Your task to perform on an android device: check out phone information Image 0: 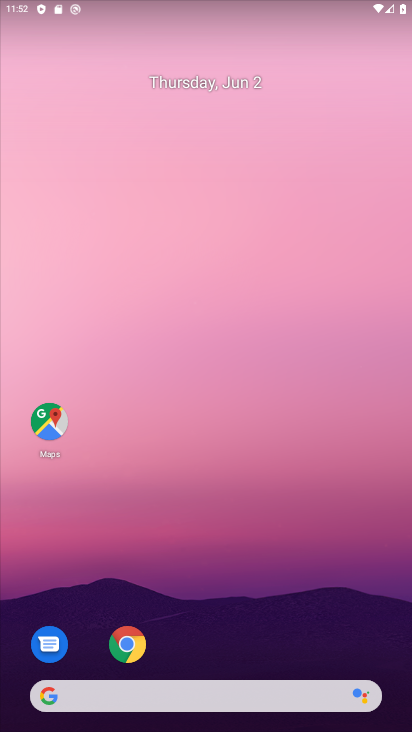
Step 0: drag from (215, 728) to (224, 0)
Your task to perform on an android device: check out phone information Image 1: 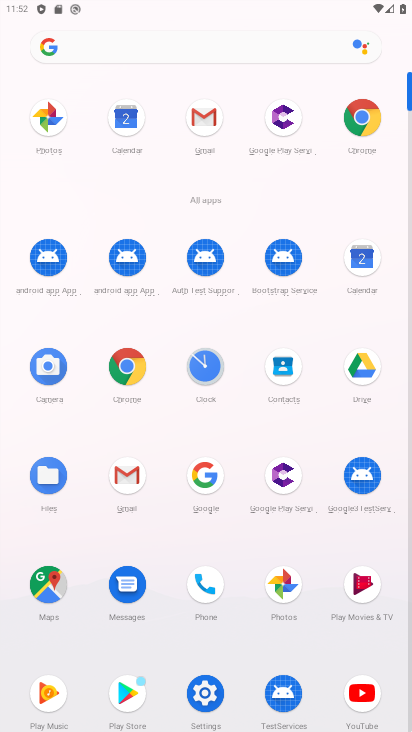
Step 1: click (198, 689)
Your task to perform on an android device: check out phone information Image 2: 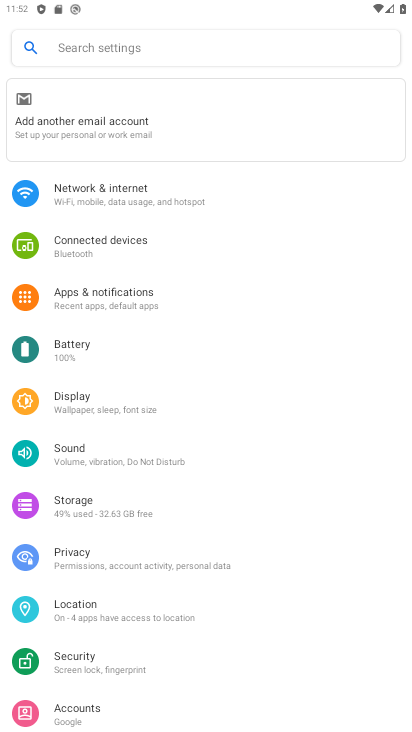
Step 2: drag from (131, 703) to (137, 143)
Your task to perform on an android device: check out phone information Image 3: 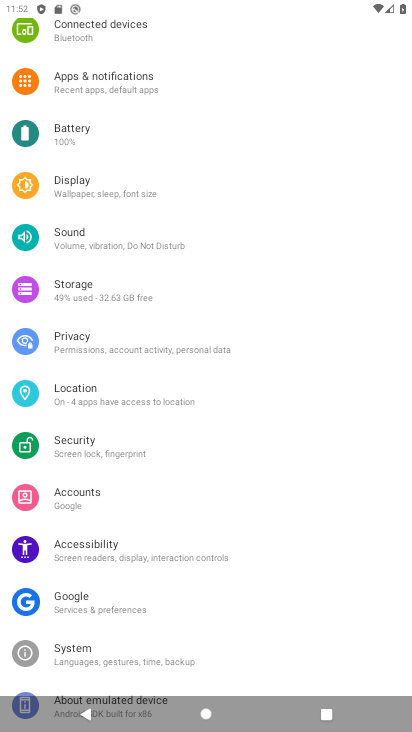
Step 3: drag from (131, 653) to (136, 209)
Your task to perform on an android device: check out phone information Image 4: 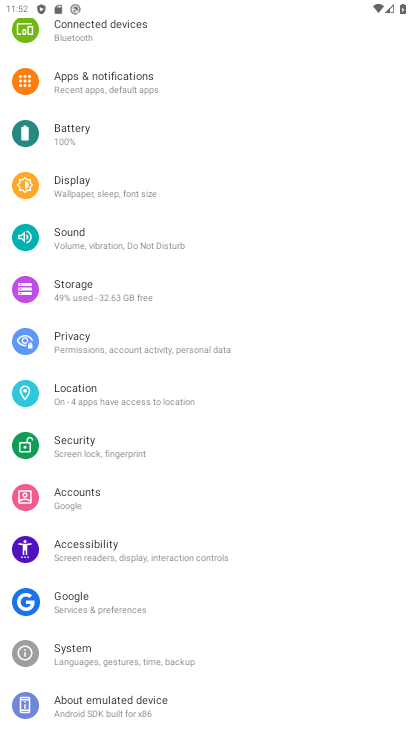
Step 4: click (115, 697)
Your task to perform on an android device: check out phone information Image 5: 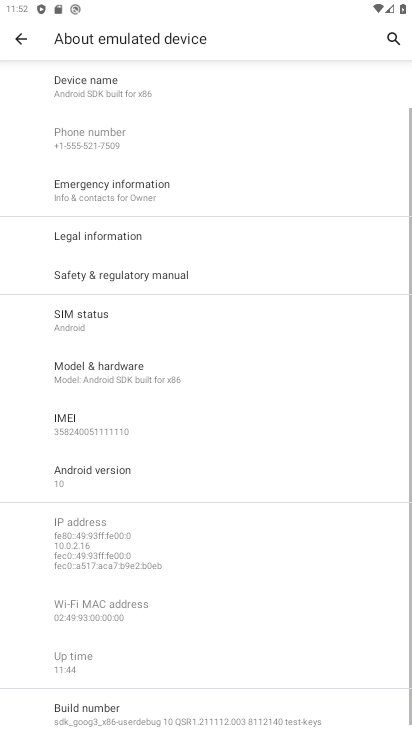
Step 5: click (120, 193)
Your task to perform on an android device: check out phone information Image 6: 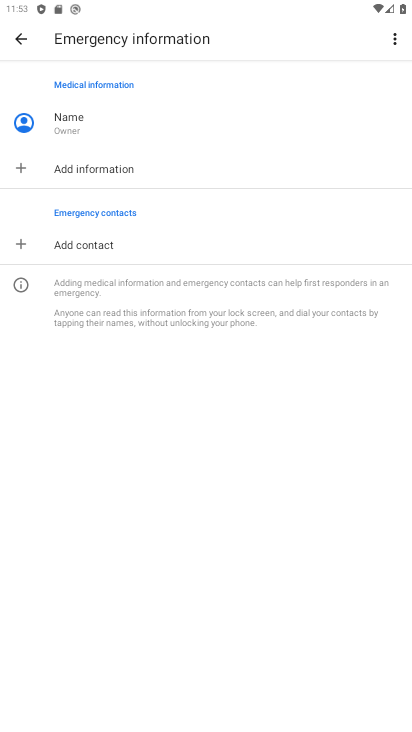
Step 6: task complete